Your task to perform on an android device: change notifications settings Image 0: 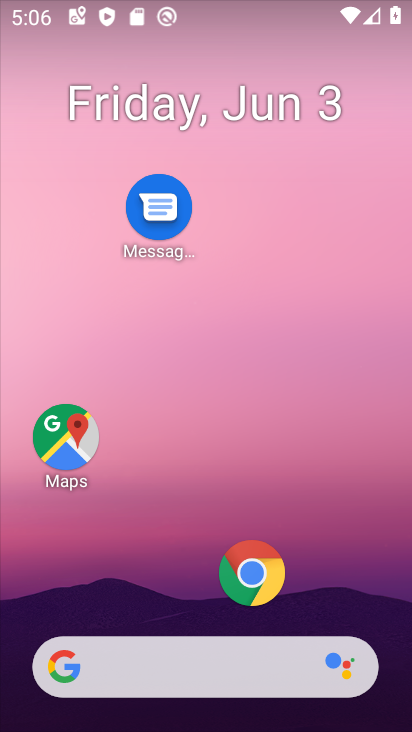
Step 0: drag from (198, 618) to (200, 42)
Your task to perform on an android device: change notifications settings Image 1: 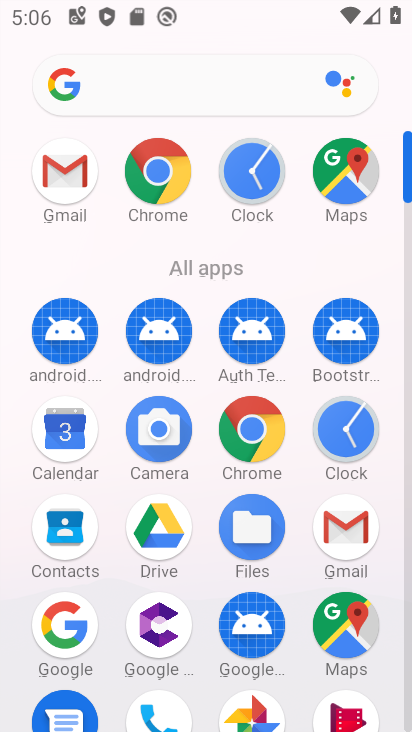
Step 1: drag from (304, 684) to (279, 366)
Your task to perform on an android device: change notifications settings Image 2: 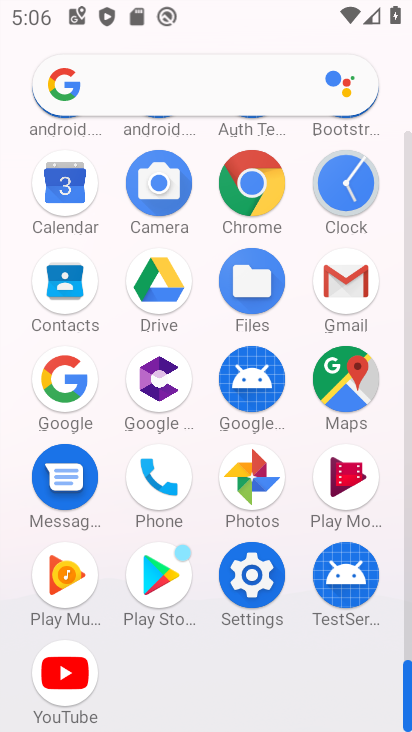
Step 2: click (248, 581)
Your task to perform on an android device: change notifications settings Image 3: 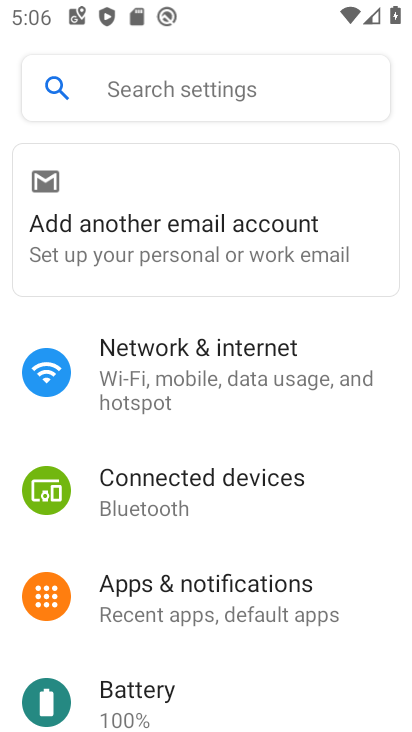
Step 3: drag from (269, 661) to (247, 474)
Your task to perform on an android device: change notifications settings Image 4: 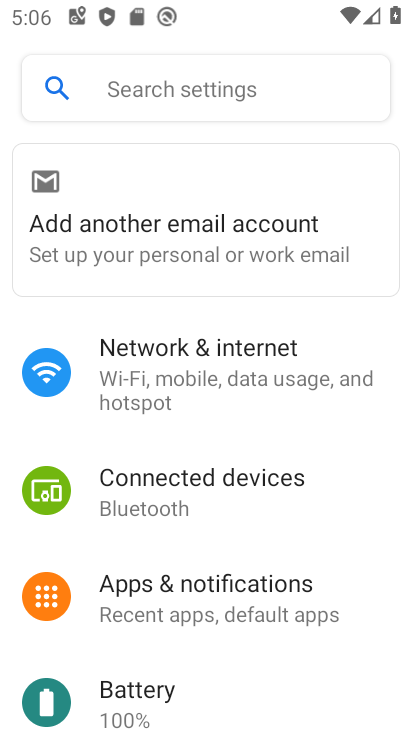
Step 4: drag from (232, 645) to (237, 508)
Your task to perform on an android device: change notifications settings Image 5: 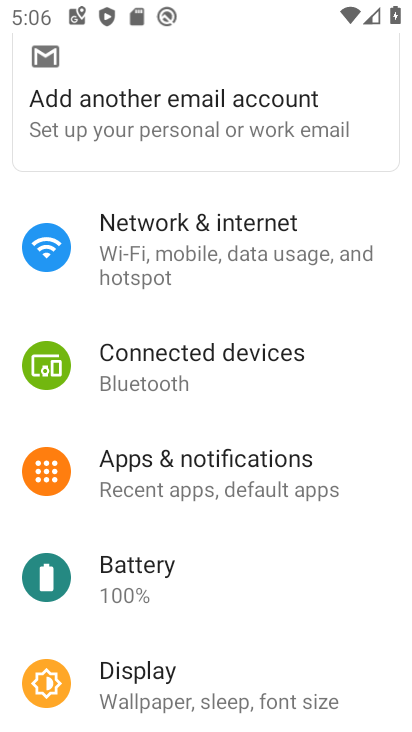
Step 5: click (239, 480)
Your task to perform on an android device: change notifications settings Image 6: 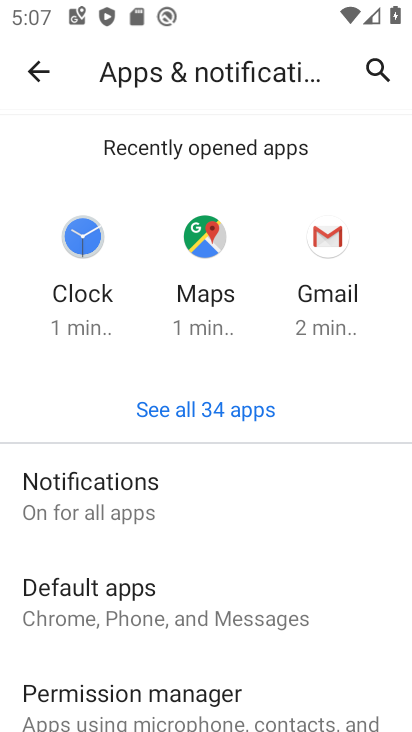
Step 6: click (129, 508)
Your task to perform on an android device: change notifications settings Image 7: 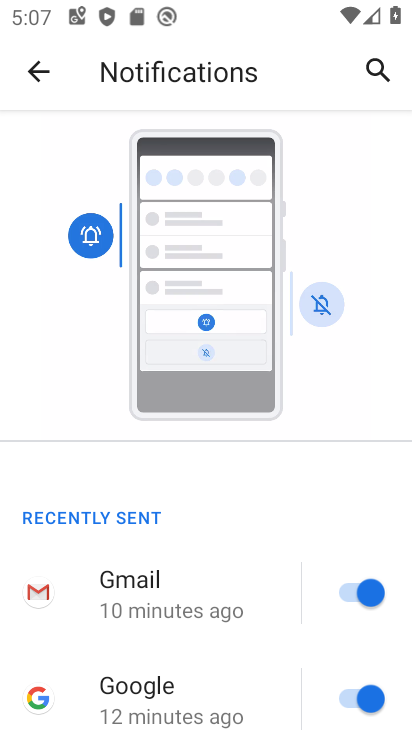
Step 7: task complete